Your task to perform on an android device: Go to Wikipedia Image 0: 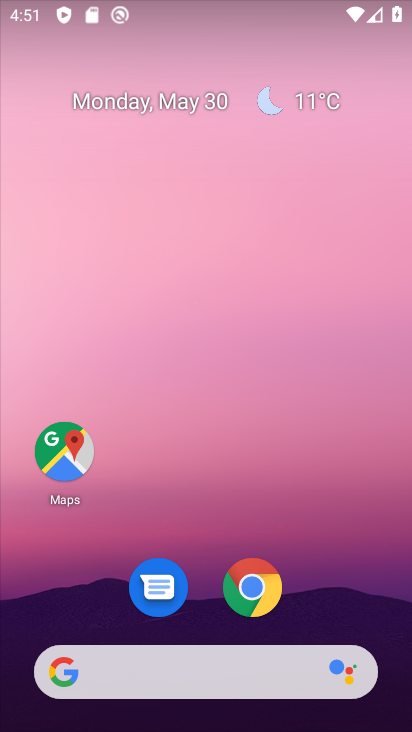
Step 0: drag from (309, 581) to (220, 14)
Your task to perform on an android device: Go to Wikipedia Image 1: 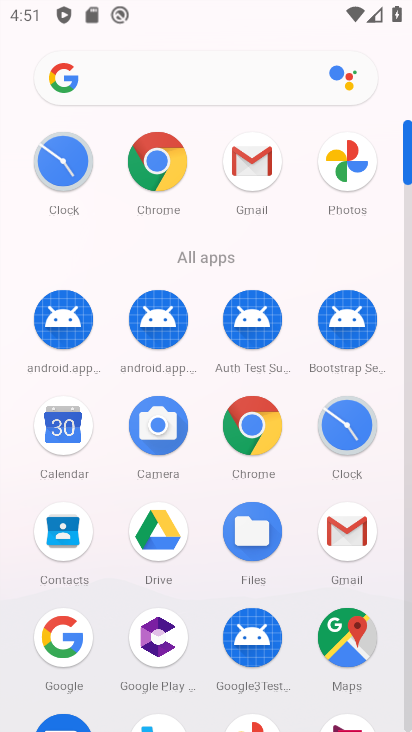
Step 1: drag from (11, 565) to (6, 226)
Your task to perform on an android device: Go to Wikipedia Image 2: 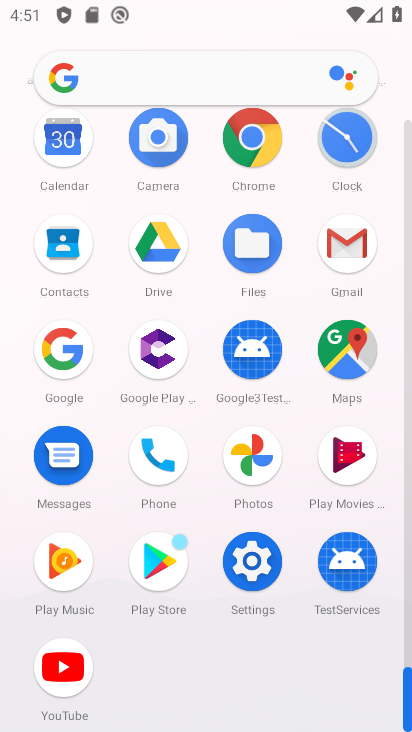
Step 2: click (253, 131)
Your task to perform on an android device: Go to Wikipedia Image 3: 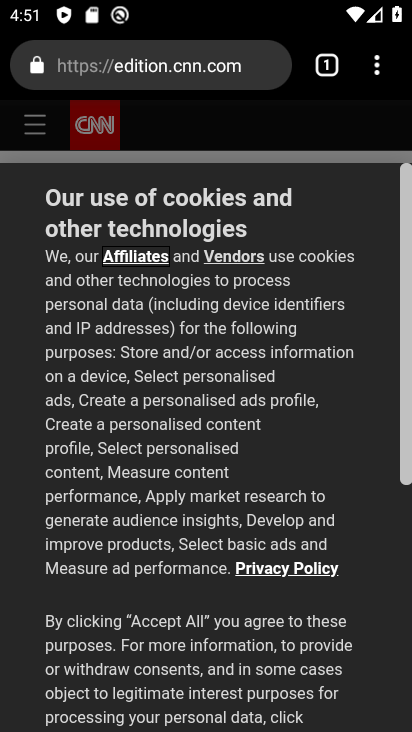
Step 3: click (211, 69)
Your task to perform on an android device: Go to Wikipedia Image 4: 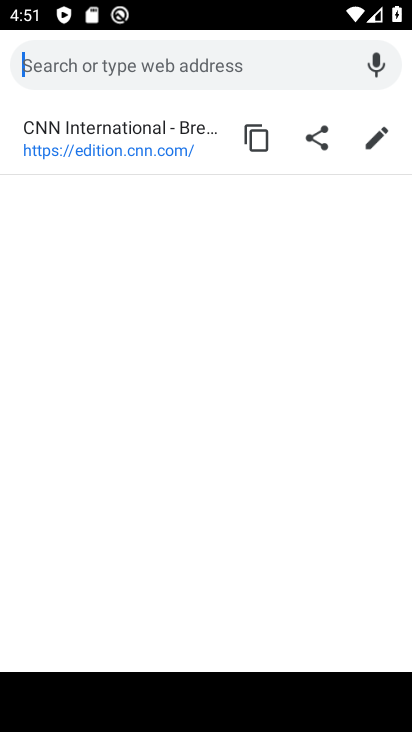
Step 4: type "Wikipedia"
Your task to perform on an android device: Go to Wikipedia Image 5: 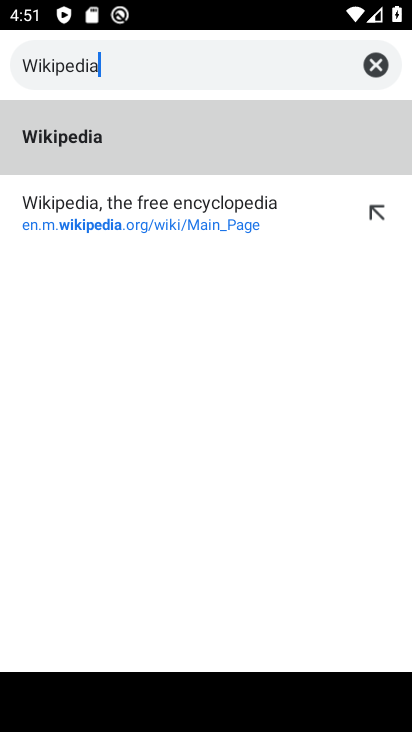
Step 5: type ""
Your task to perform on an android device: Go to Wikipedia Image 6: 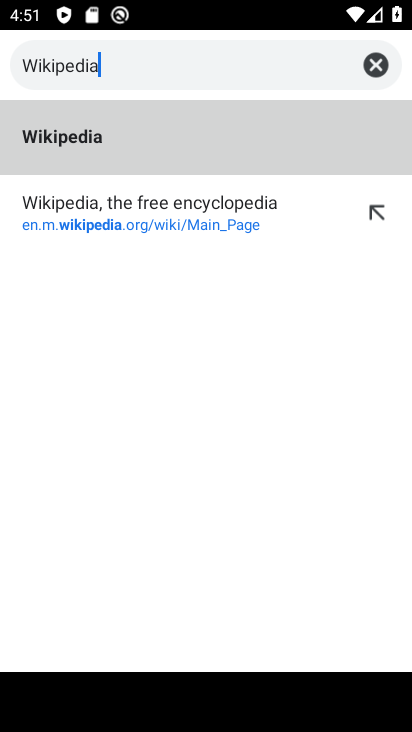
Step 6: click (100, 204)
Your task to perform on an android device: Go to Wikipedia Image 7: 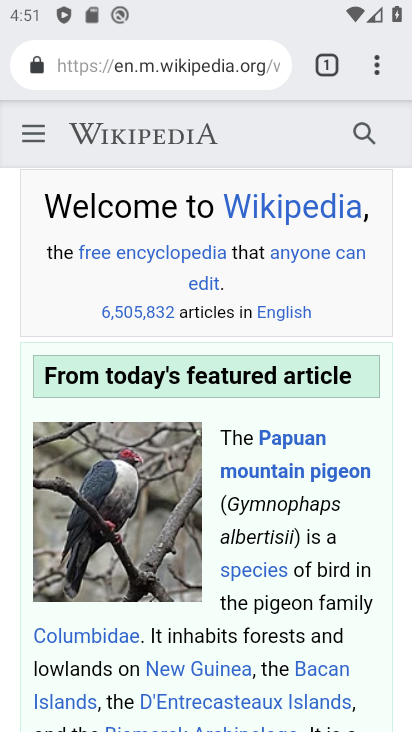
Step 7: task complete